Your task to perform on an android device: open device folders in google photos Image 0: 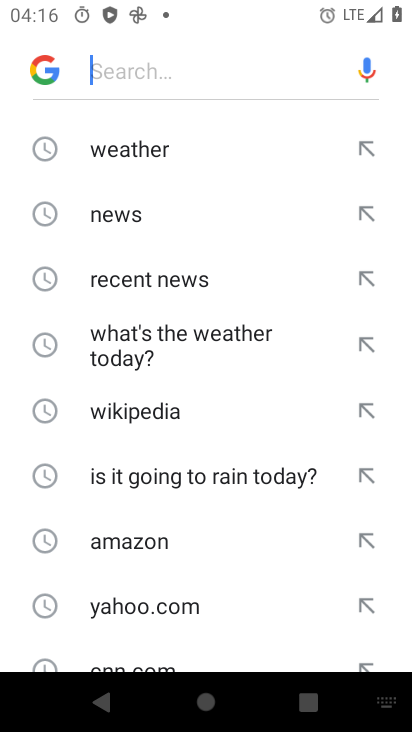
Step 0: press home button
Your task to perform on an android device: open device folders in google photos Image 1: 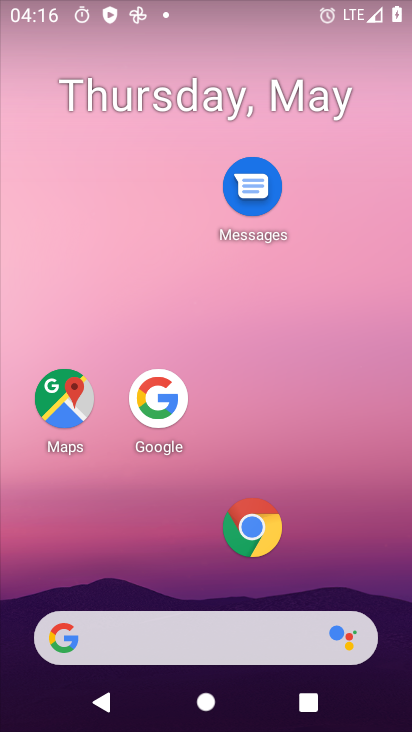
Step 1: drag from (210, 573) to (182, 131)
Your task to perform on an android device: open device folders in google photos Image 2: 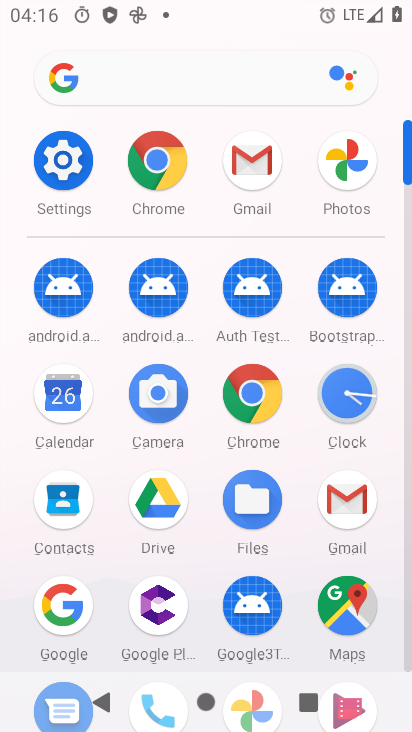
Step 2: drag from (201, 604) to (221, 228)
Your task to perform on an android device: open device folders in google photos Image 3: 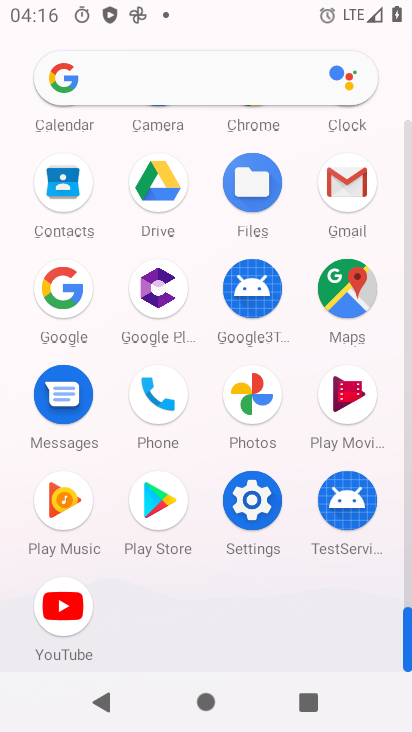
Step 3: click (248, 379)
Your task to perform on an android device: open device folders in google photos Image 4: 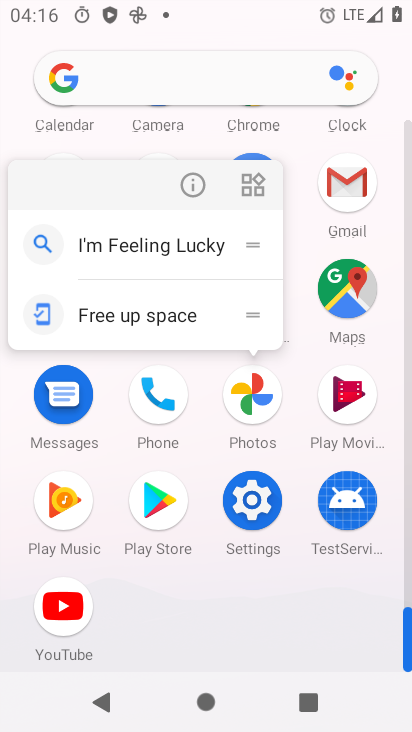
Step 4: click (190, 179)
Your task to perform on an android device: open device folders in google photos Image 5: 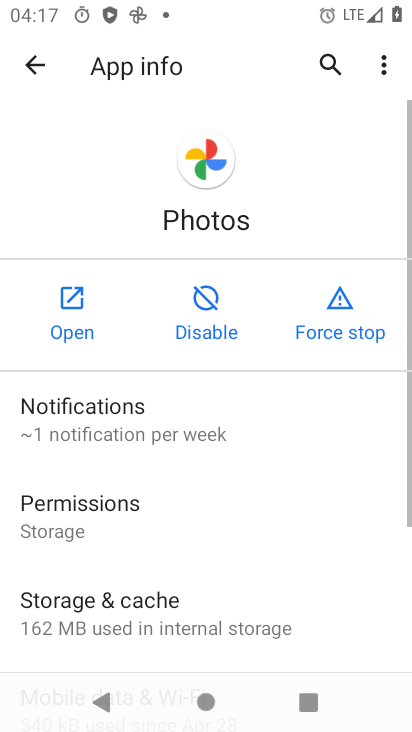
Step 5: click (69, 295)
Your task to perform on an android device: open device folders in google photos Image 6: 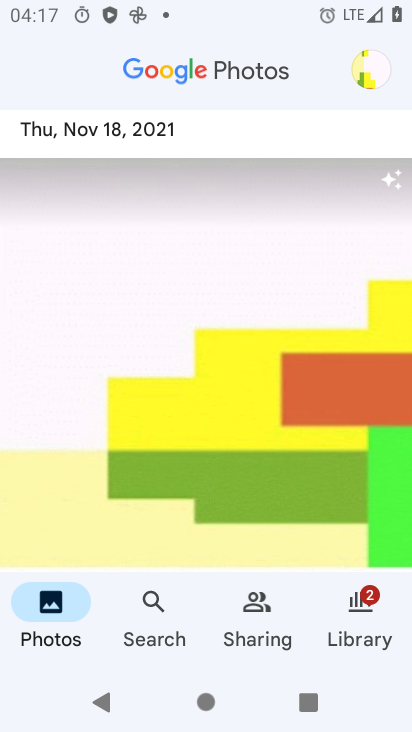
Step 6: click (346, 608)
Your task to perform on an android device: open device folders in google photos Image 7: 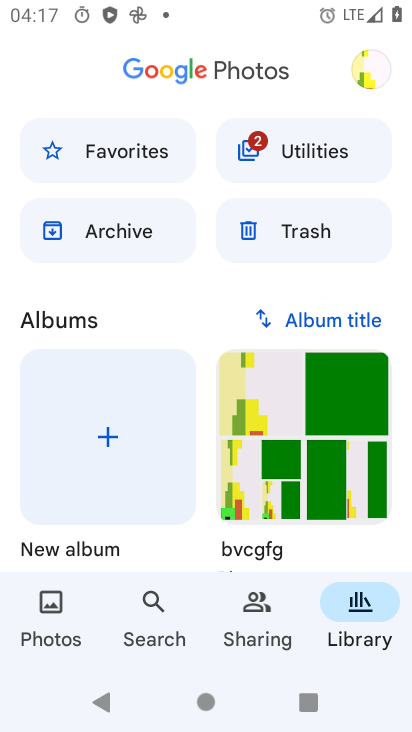
Step 7: task complete